Your task to perform on an android device: What's the weather? Image 0: 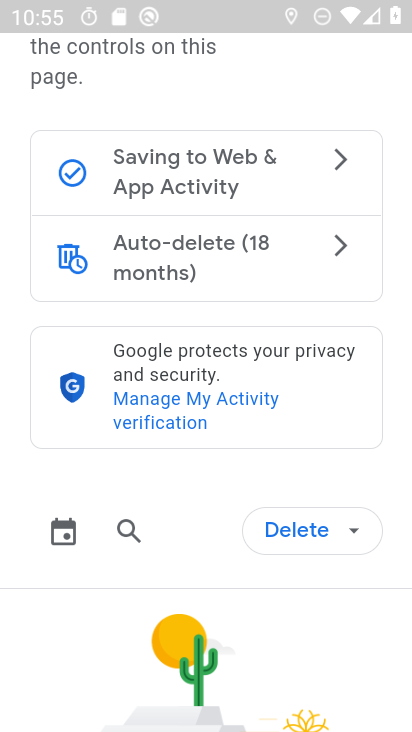
Step 0: press home button
Your task to perform on an android device: What's the weather? Image 1: 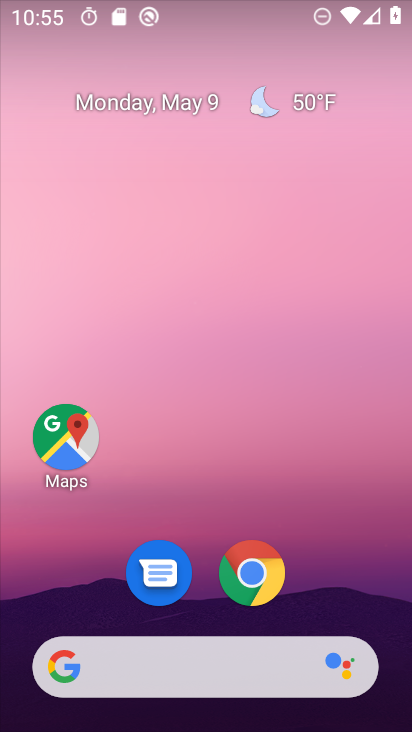
Step 1: click (303, 103)
Your task to perform on an android device: What's the weather? Image 2: 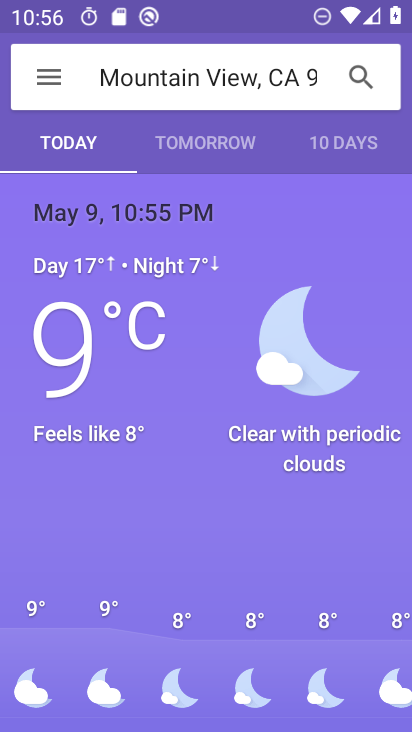
Step 2: task complete